Your task to perform on an android device: Open Wikipedia Image 0: 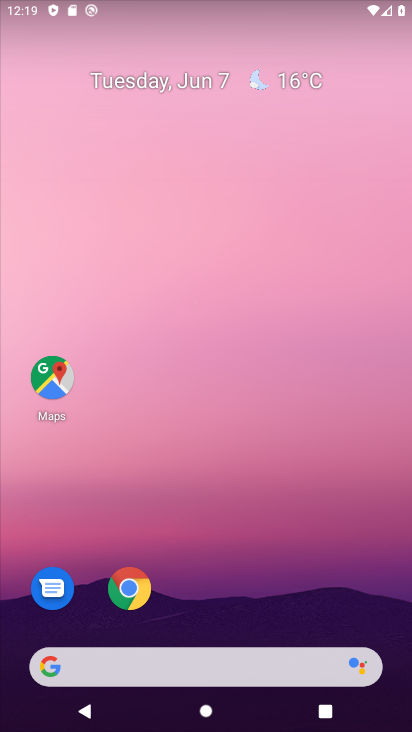
Step 0: click (268, 677)
Your task to perform on an android device: Open Wikipedia Image 1: 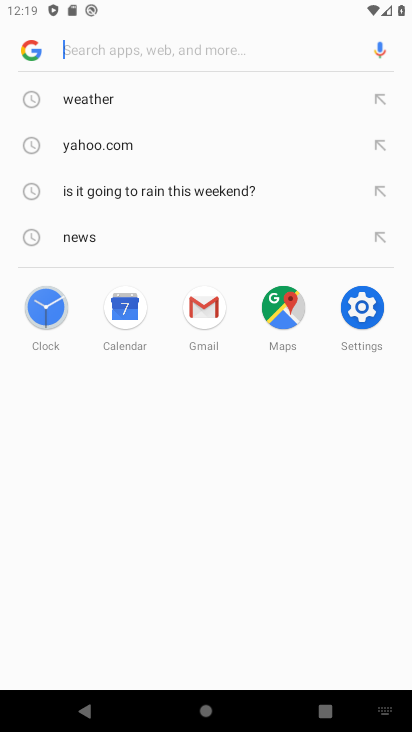
Step 1: type "wikipedia"
Your task to perform on an android device: Open Wikipedia Image 2: 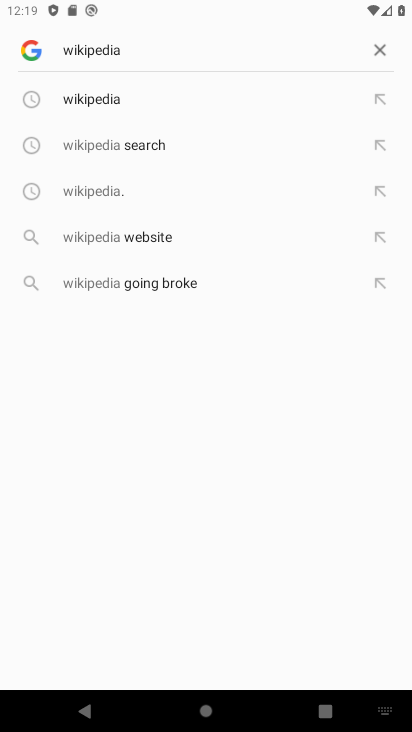
Step 2: click (225, 88)
Your task to perform on an android device: Open Wikipedia Image 3: 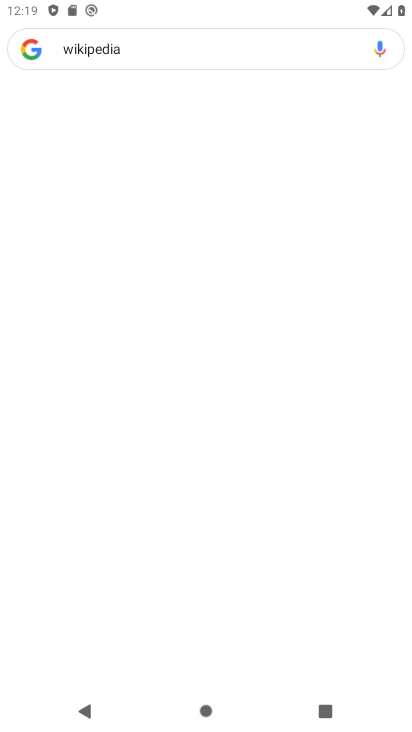
Step 3: task complete